Your task to perform on an android device: create a new album in the google photos Image 0: 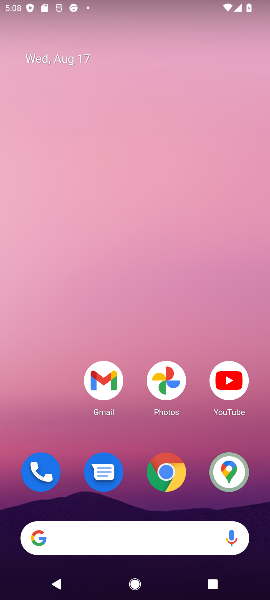
Step 0: click (161, 378)
Your task to perform on an android device: create a new album in the google photos Image 1: 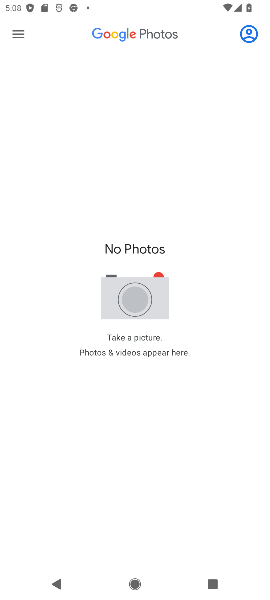
Step 1: click (22, 31)
Your task to perform on an android device: create a new album in the google photos Image 2: 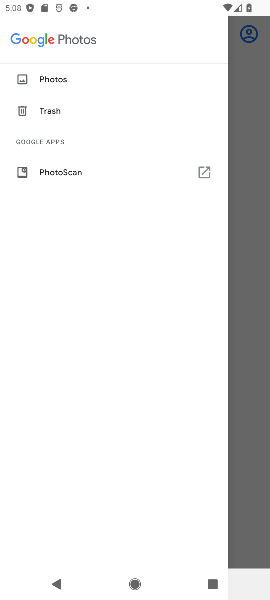
Step 2: click (87, 76)
Your task to perform on an android device: create a new album in the google photos Image 3: 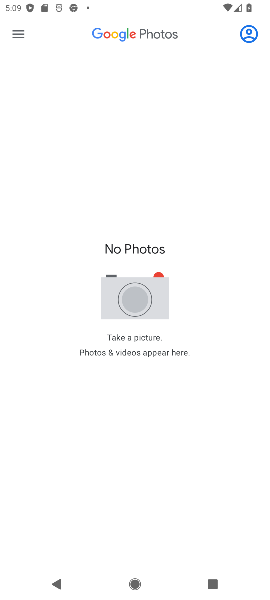
Step 3: click (240, 34)
Your task to perform on an android device: create a new album in the google photos Image 4: 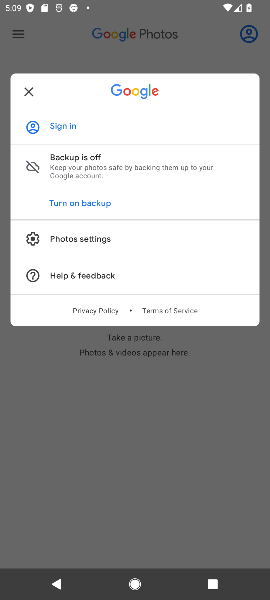
Step 4: click (160, 58)
Your task to perform on an android device: create a new album in the google photos Image 5: 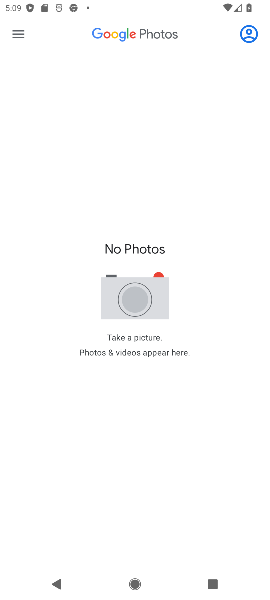
Step 5: task complete